Your task to perform on an android device: add a contact in the contacts app Image 0: 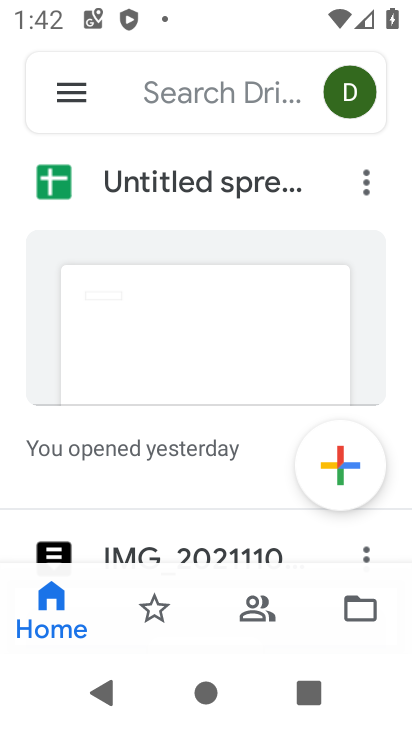
Step 0: press home button
Your task to perform on an android device: add a contact in the contacts app Image 1: 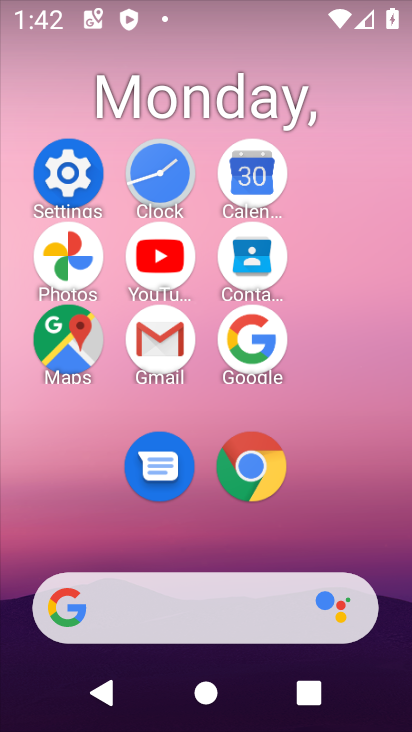
Step 1: click (270, 276)
Your task to perform on an android device: add a contact in the contacts app Image 2: 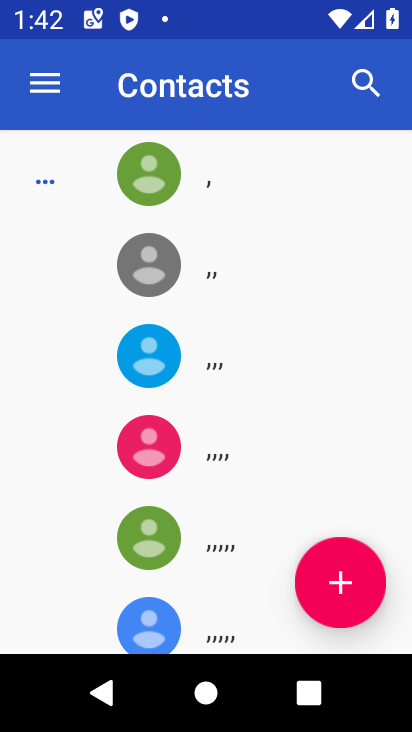
Step 2: click (370, 543)
Your task to perform on an android device: add a contact in the contacts app Image 3: 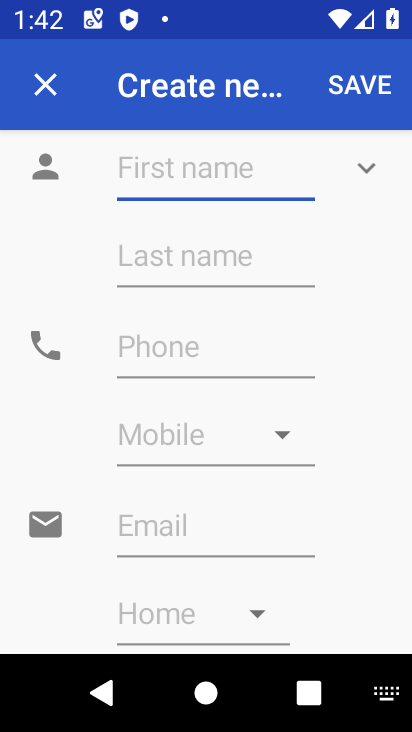
Step 3: type "uuyh"
Your task to perform on an android device: add a contact in the contacts app Image 4: 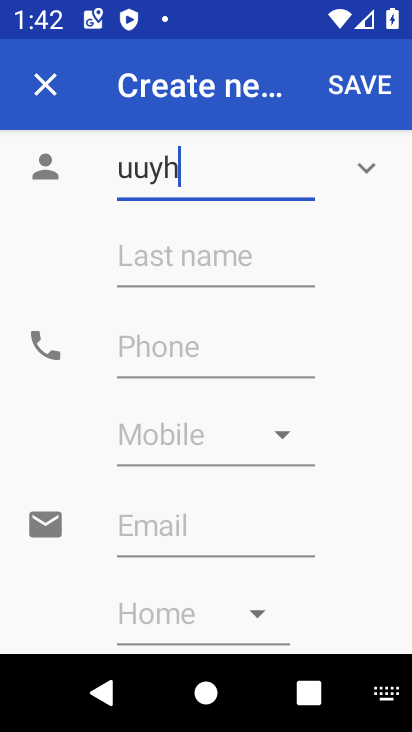
Step 4: click (304, 354)
Your task to perform on an android device: add a contact in the contacts app Image 5: 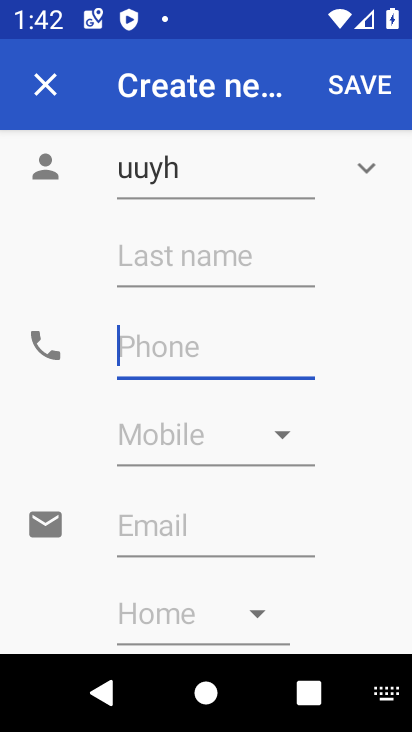
Step 5: type "8876543212"
Your task to perform on an android device: add a contact in the contacts app Image 6: 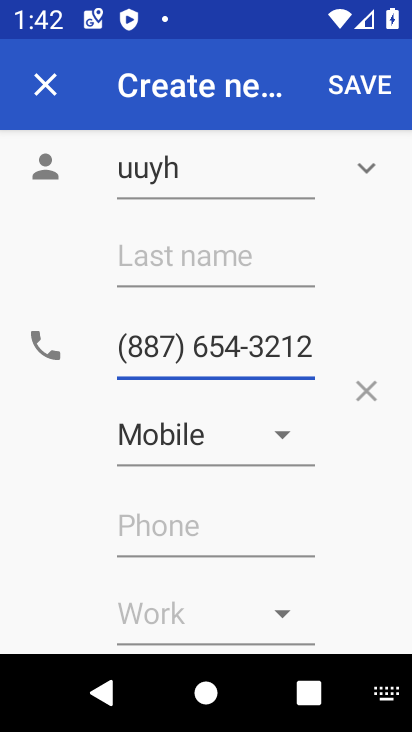
Step 6: click (387, 69)
Your task to perform on an android device: add a contact in the contacts app Image 7: 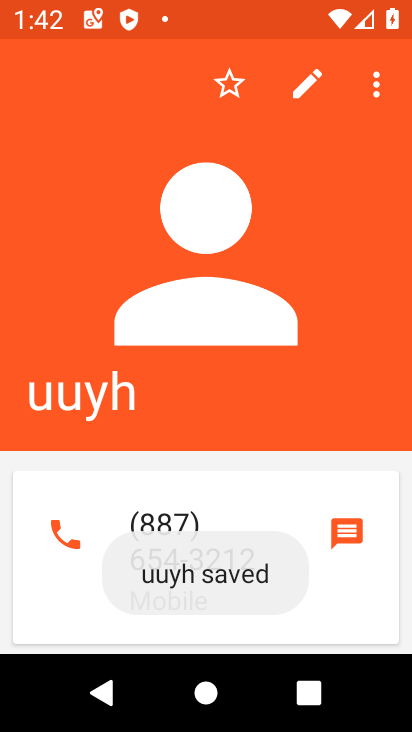
Step 7: task complete